Your task to perform on an android device: Search for sushi restaurants on Maps Image 0: 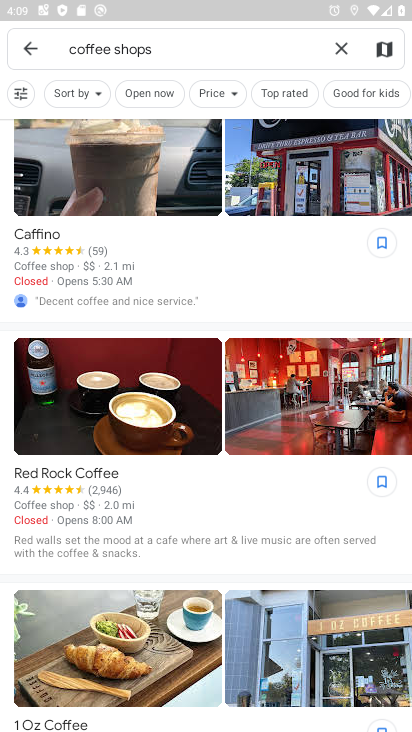
Step 0: press home button
Your task to perform on an android device: Search for sushi restaurants on Maps Image 1: 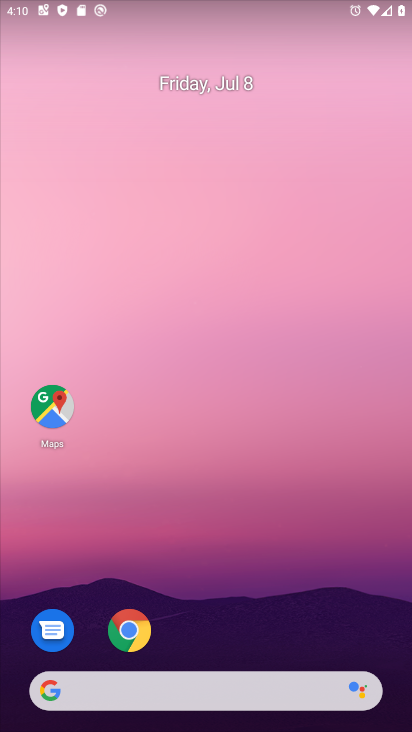
Step 1: click (51, 405)
Your task to perform on an android device: Search for sushi restaurants on Maps Image 2: 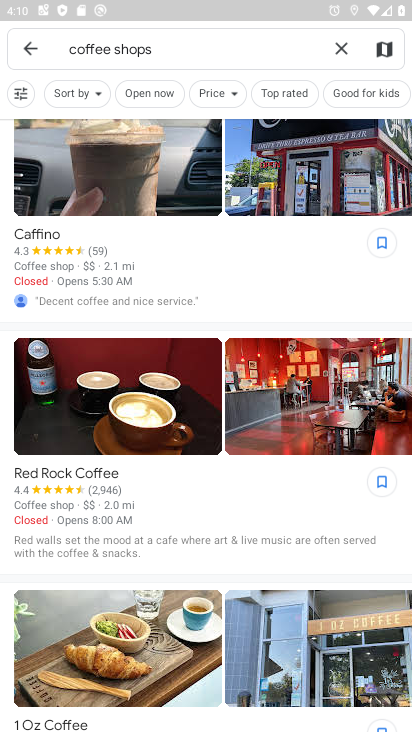
Step 2: click (344, 46)
Your task to perform on an android device: Search for sushi restaurants on Maps Image 3: 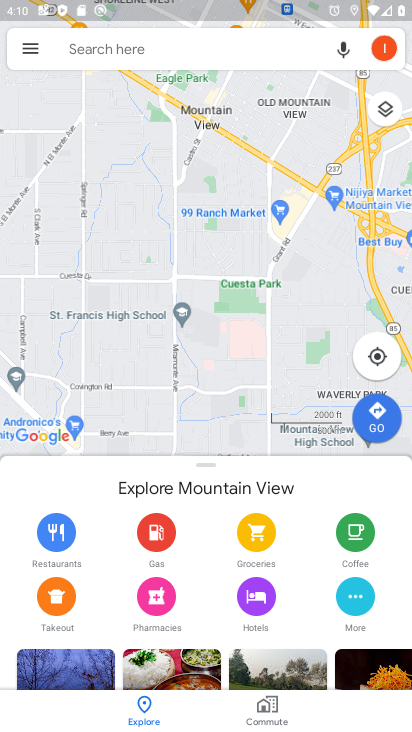
Step 3: click (247, 58)
Your task to perform on an android device: Search for sushi restaurants on Maps Image 4: 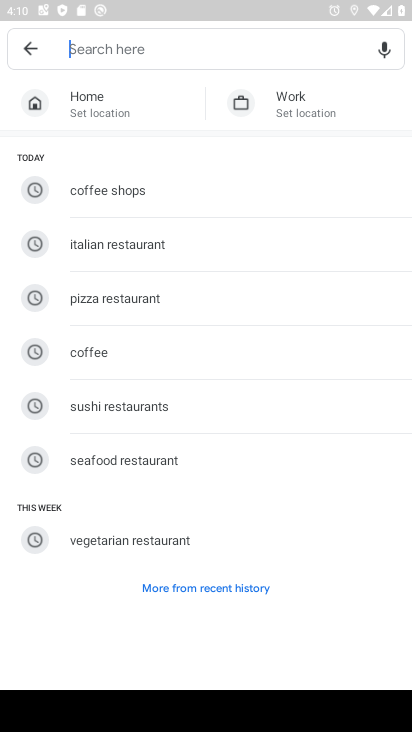
Step 4: type "sushi restaurants"
Your task to perform on an android device: Search for sushi restaurants on Maps Image 5: 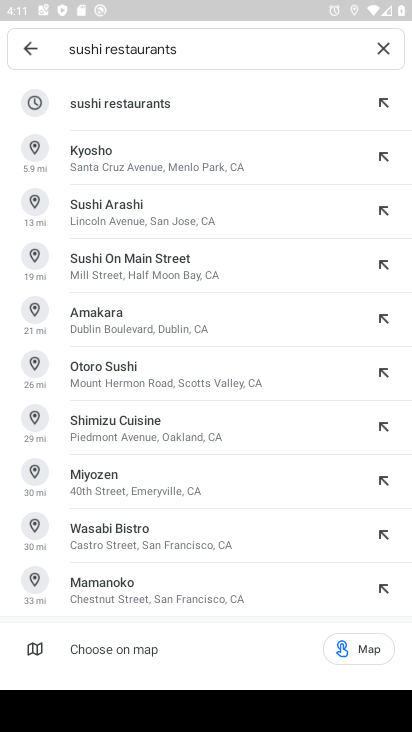
Step 5: click (156, 100)
Your task to perform on an android device: Search for sushi restaurants on Maps Image 6: 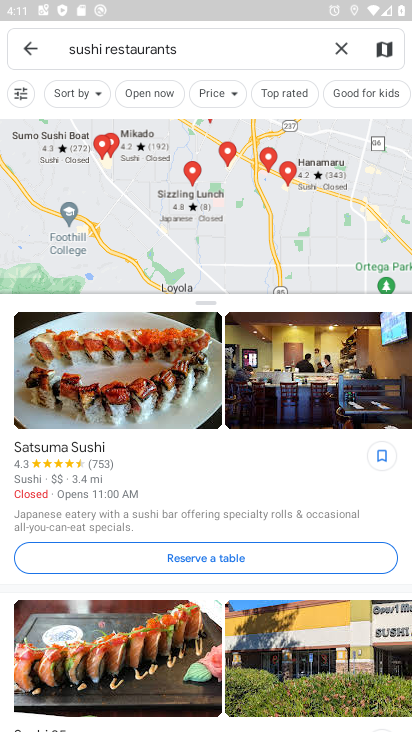
Step 6: task complete